Your task to perform on an android device: open sync settings in chrome Image 0: 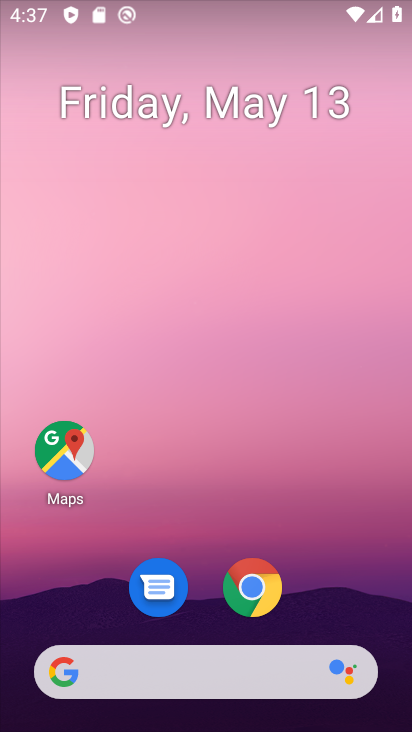
Step 0: click (269, 584)
Your task to perform on an android device: open sync settings in chrome Image 1: 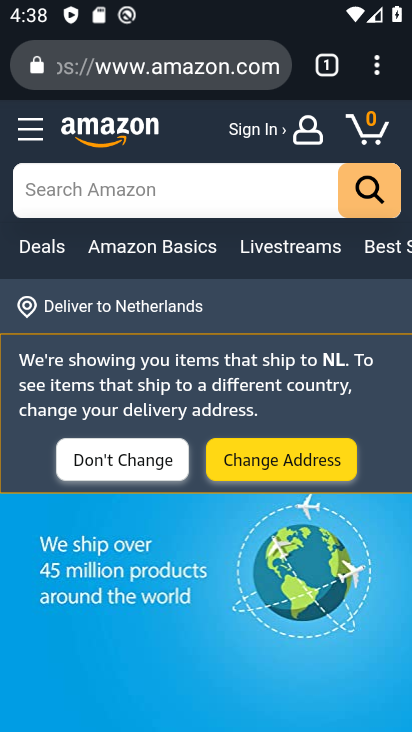
Step 1: drag from (374, 59) to (158, 636)
Your task to perform on an android device: open sync settings in chrome Image 2: 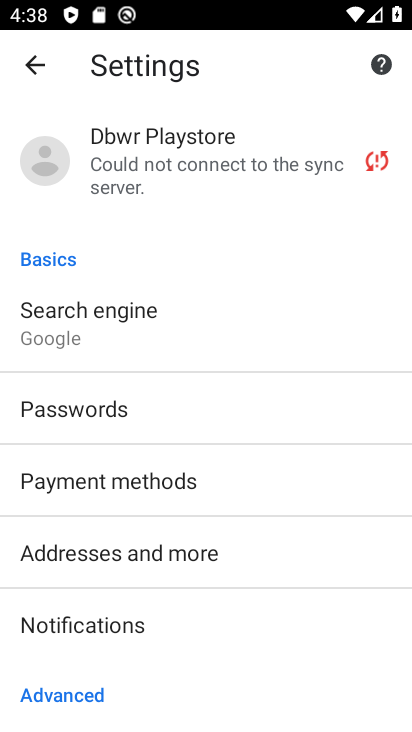
Step 2: click (135, 172)
Your task to perform on an android device: open sync settings in chrome Image 3: 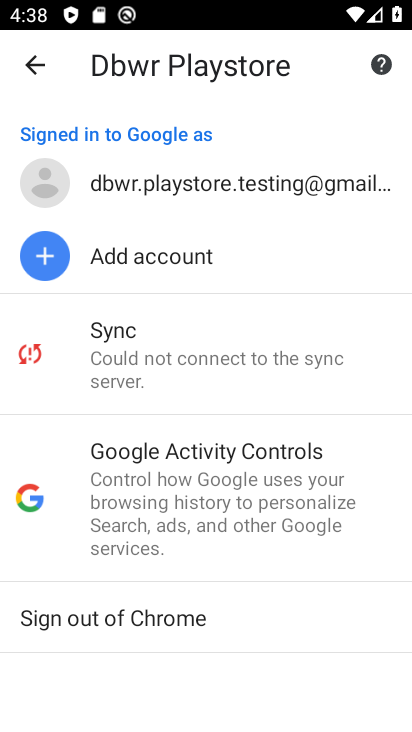
Step 3: click (131, 356)
Your task to perform on an android device: open sync settings in chrome Image 4: 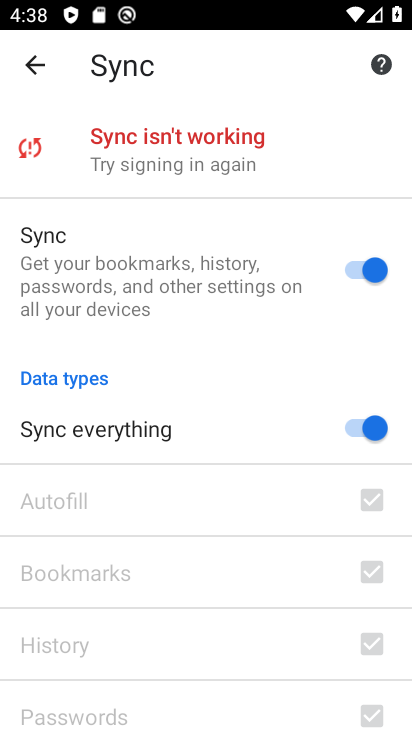
Step 4: task complete